Your task to perform on an android device: Go to location settings Image 0: 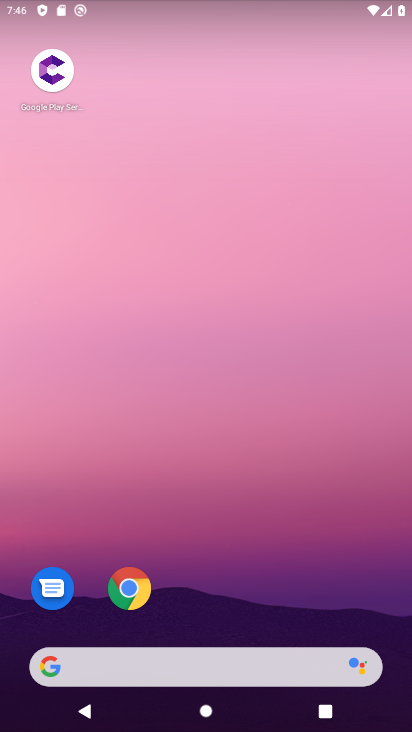
Step 0: drag from (227, 528) to (301, 47)
Your task to perform on an android device: Go to location settings Image 1: 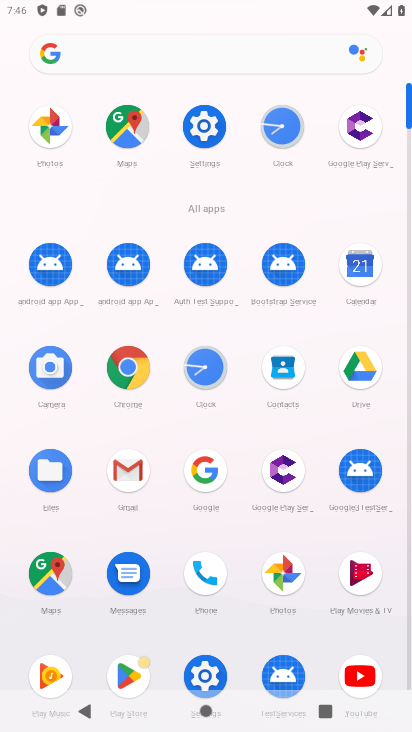
Step 1: click (202, 127)
Your task to perform on an android device: Go to location settings Image 2: 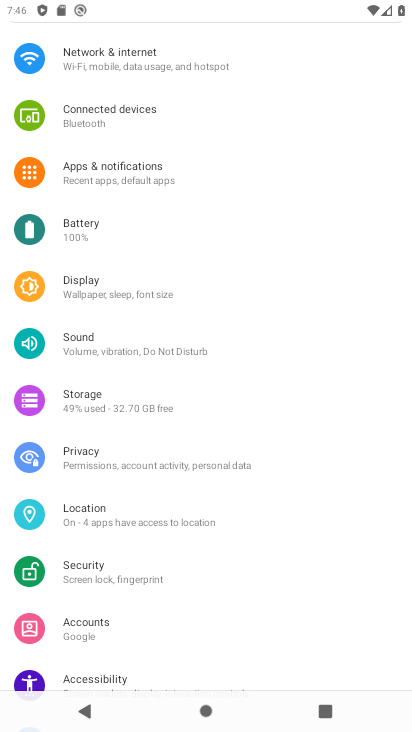
Step 2: click (83, 508)
Your task to perform on an android device: Go to location settings Image 3: 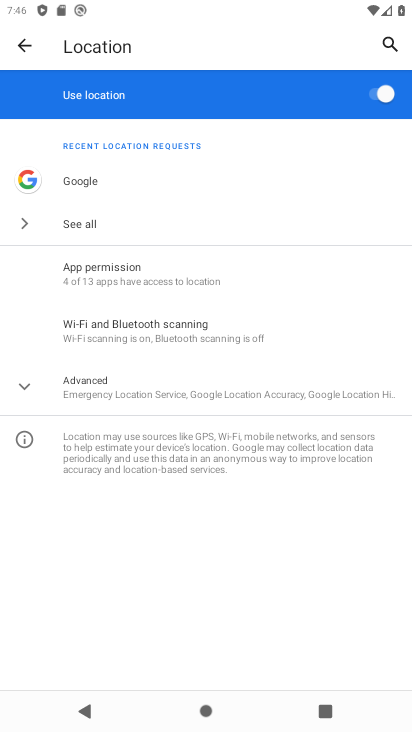
Step 3: task complete